Your task to perform on an android device: check the backup settings in the google photos Image 0: 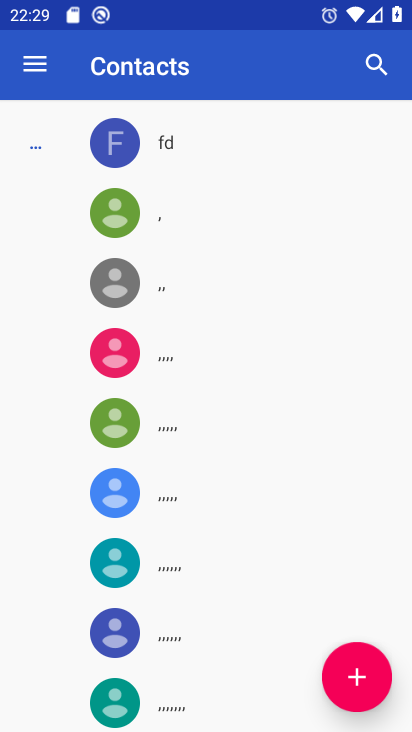
Step 0: press home button
Your task to perform on an android device: check the backup settings in the google photos Image 1: 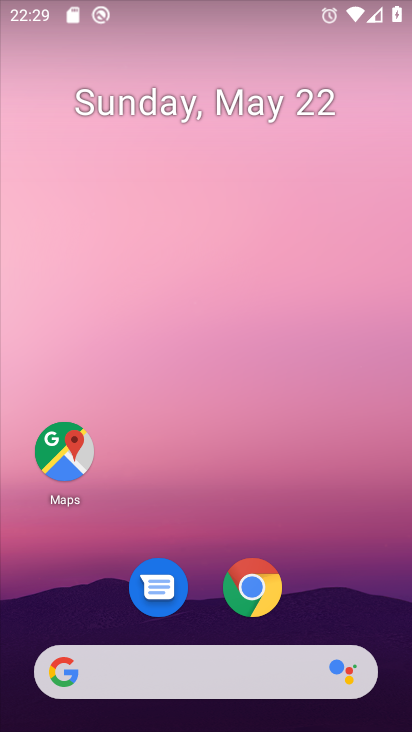
Step 1: drag from (319, 539) to (280, 23)
Your task to perform on an android device: check the backup settings in the google photos Image 2: 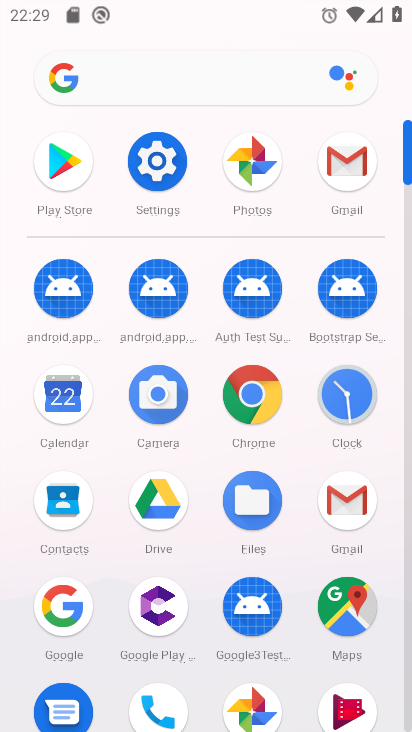
Step 2: click (251, 161)
Your task to perform on an android device: check the backup settings in the google photos Image 3: 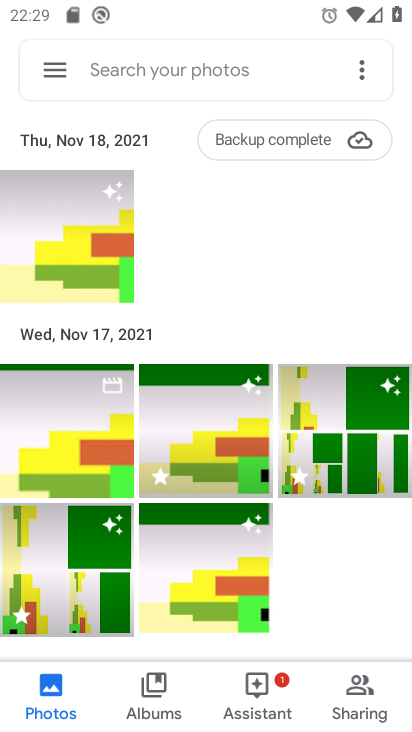
Step 3: click (46, 60)
Your task to perform on an android device: check the backup settings in the google photos Image 4: 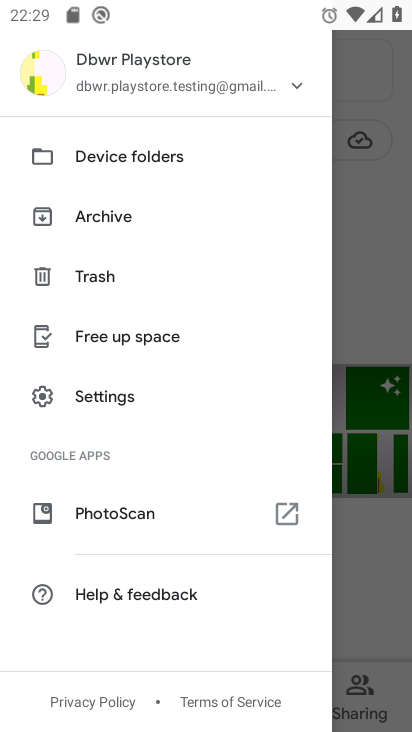
Step 4: click (113, 391)
Your task to perform on an android device: check the backup settings in the google photos Image 5: 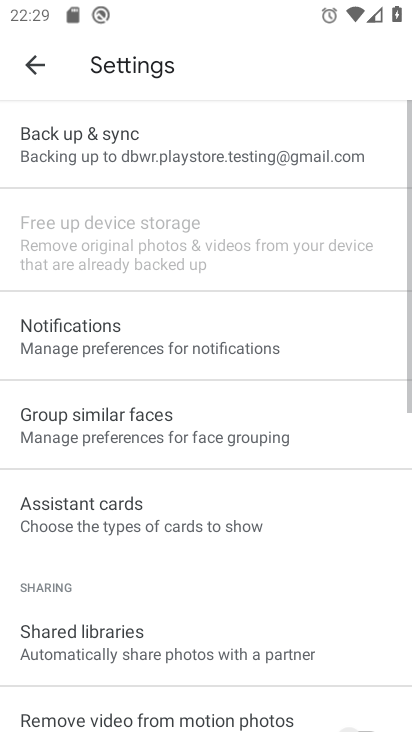
Step 5: click (175, 135)
Your task to perform on an android device: check the backup settings in the google photos Image 6: 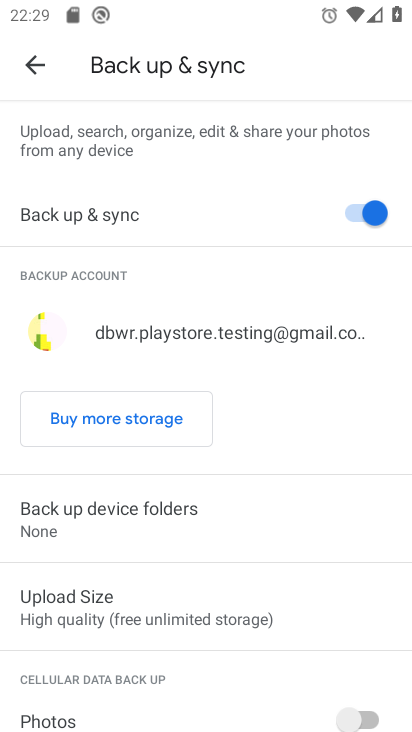
Step 6: task complete